Your task to perform on an android device: Go to network settings Image 0: 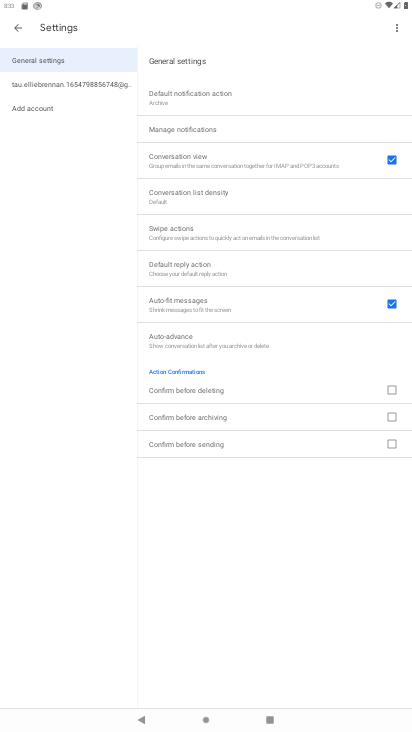
Step 0: drag from (283, 4) to (340, 522)
Your task to perform on an android device: Go to network settings Image 1: 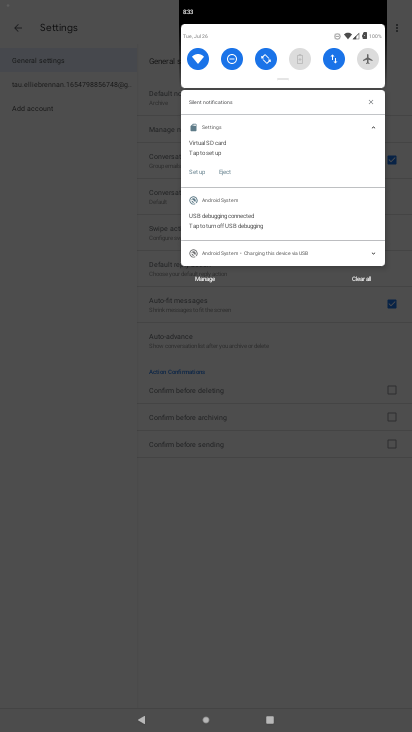
Step 1: click (337, 61)
Your task to perform on an android device: Go to network settings Image 2: 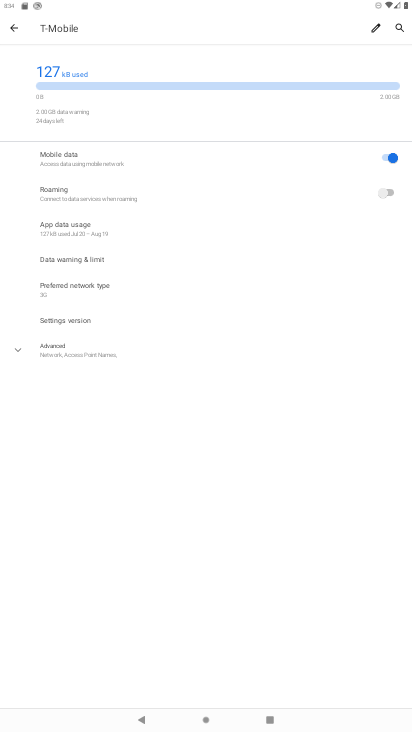
Step 2: task complete